Your task to perform on an android device: clear all cookies in the chrome app Image 0: 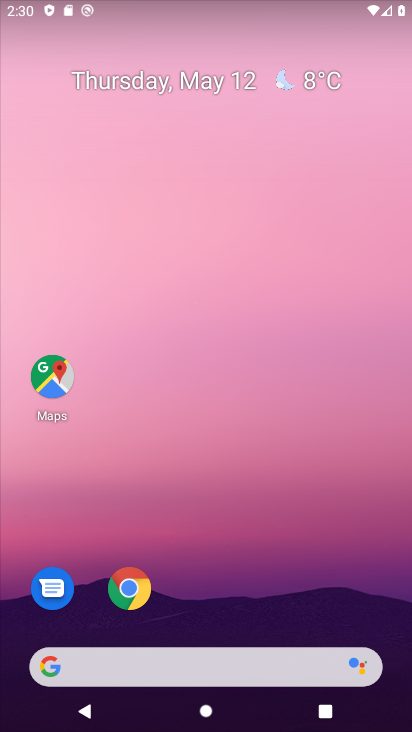
Step 0: click (140, 587)
Your task to perform on an android device: clear all cookies in the chrome app Image 1: 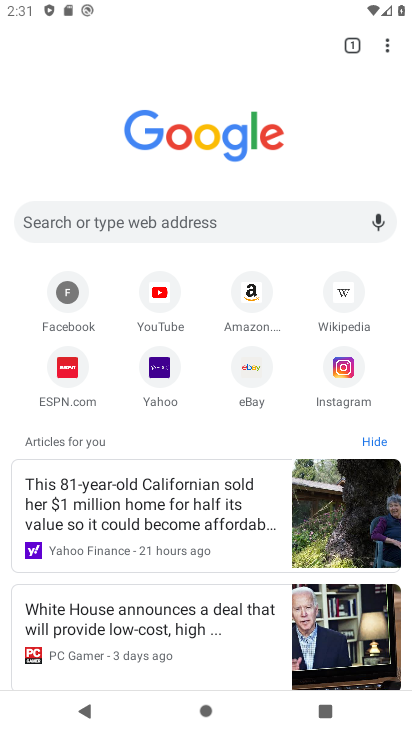
Step 1: click (391, 52)
Your task to perform on an android device: clear all cookies in the chrome app Image 2: 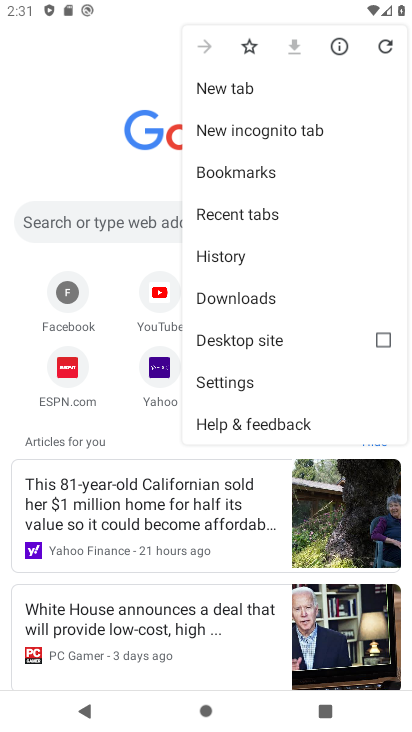
Step 2: click (284, 258)
Your task to perform on an android device: clear all cookies in the chrome app Image 3: 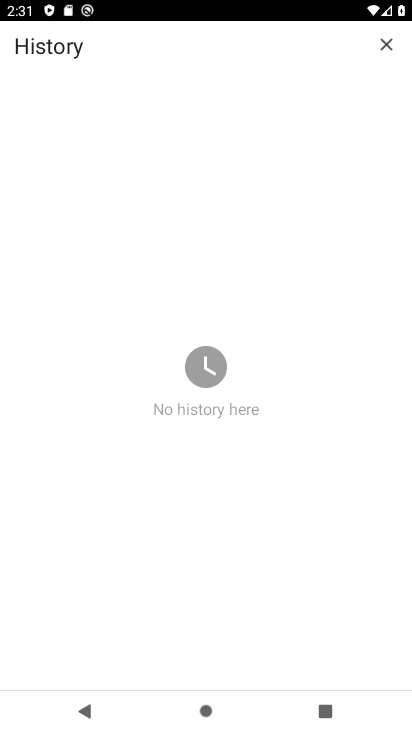
Step 3: task complete